Your task to perform on an android device: Clear the shopping cart on walmart. Search for "logitech g933" on walmart, select the first entry, and add it to the cart. Image 0: 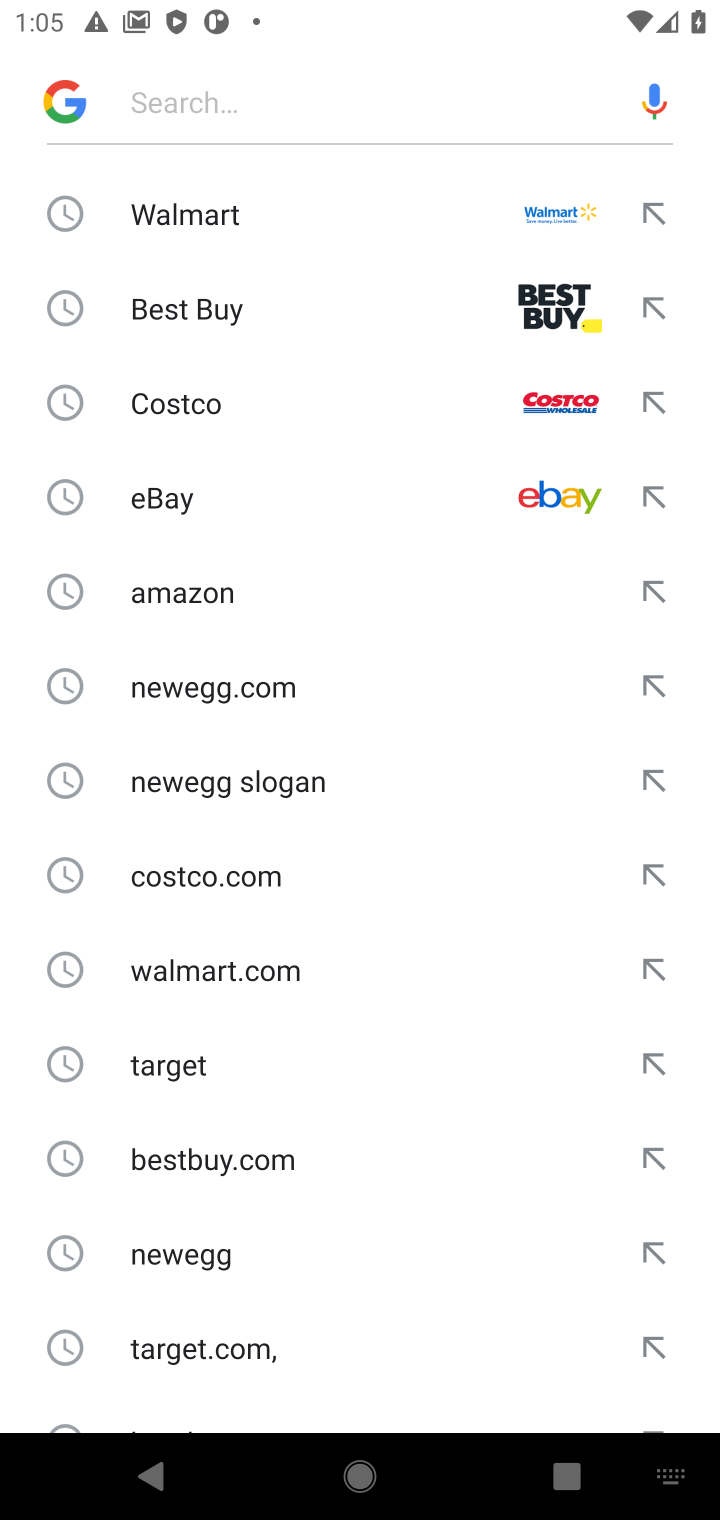
Step 0: click (197, 203)
Your task to perform on an android device: Clear the shopping cart on walmart. Search for "logitech g933" on walmart, select the first entry, and add it to the cart. Image 1: 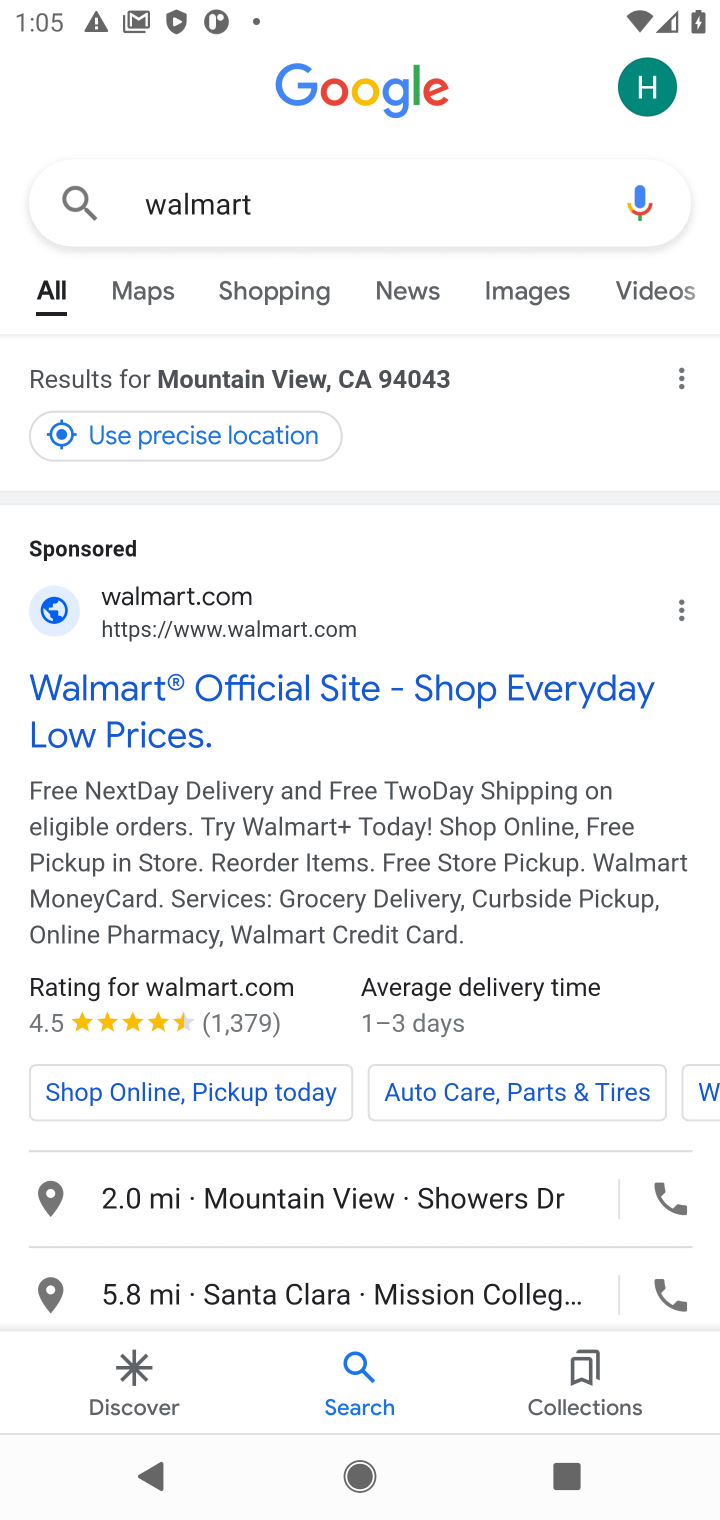
Step 1: click (160, 688)
Your task to perform on an android device: Clear the shopping cart on walmart. Search for "logitech g933" on walmart, select the first entry, and add it to the cart. Image 2: 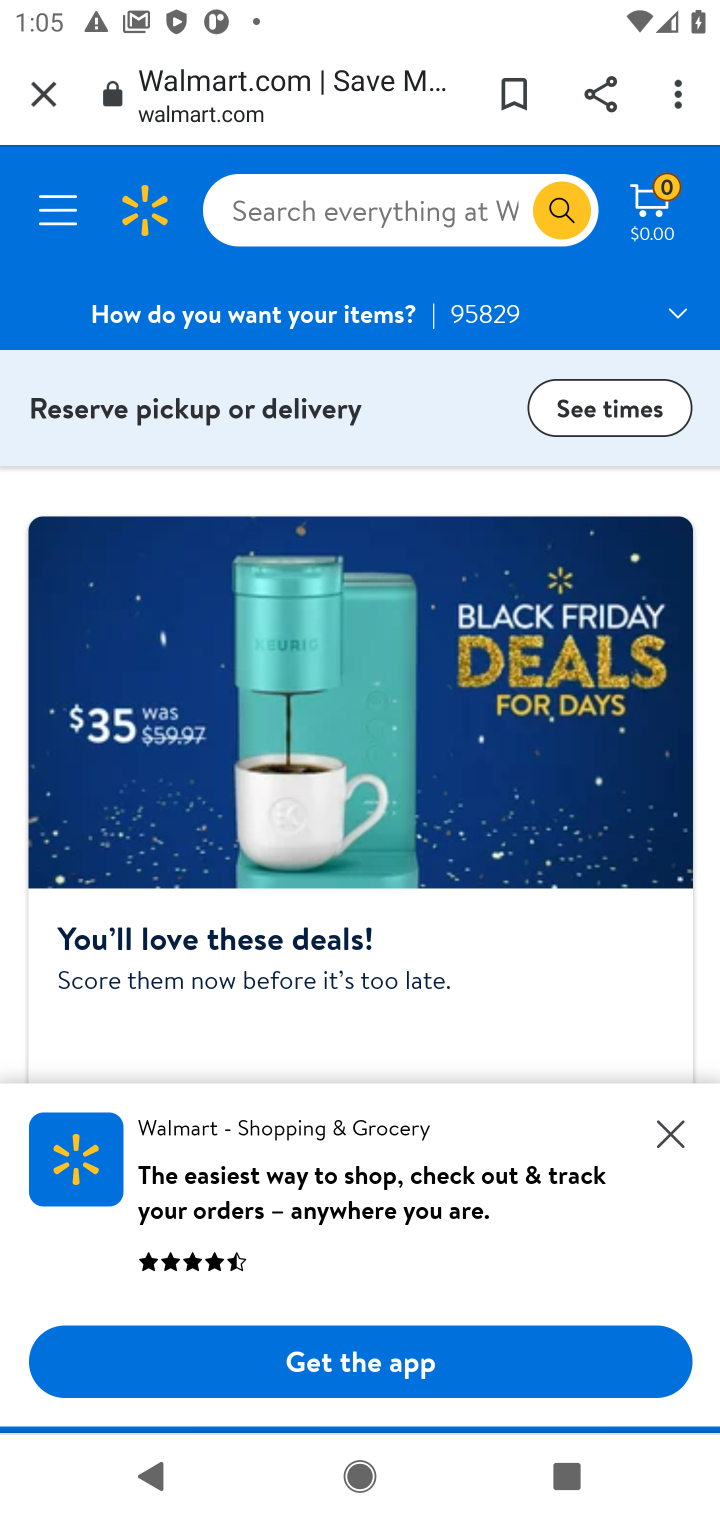
Step 2: click (351, 229)
Your task to perform on an android device: Clear the shopping cart on walmart. Search for "logitech g933" on walmart, select the first entry, and add it to the cart. Image 3: 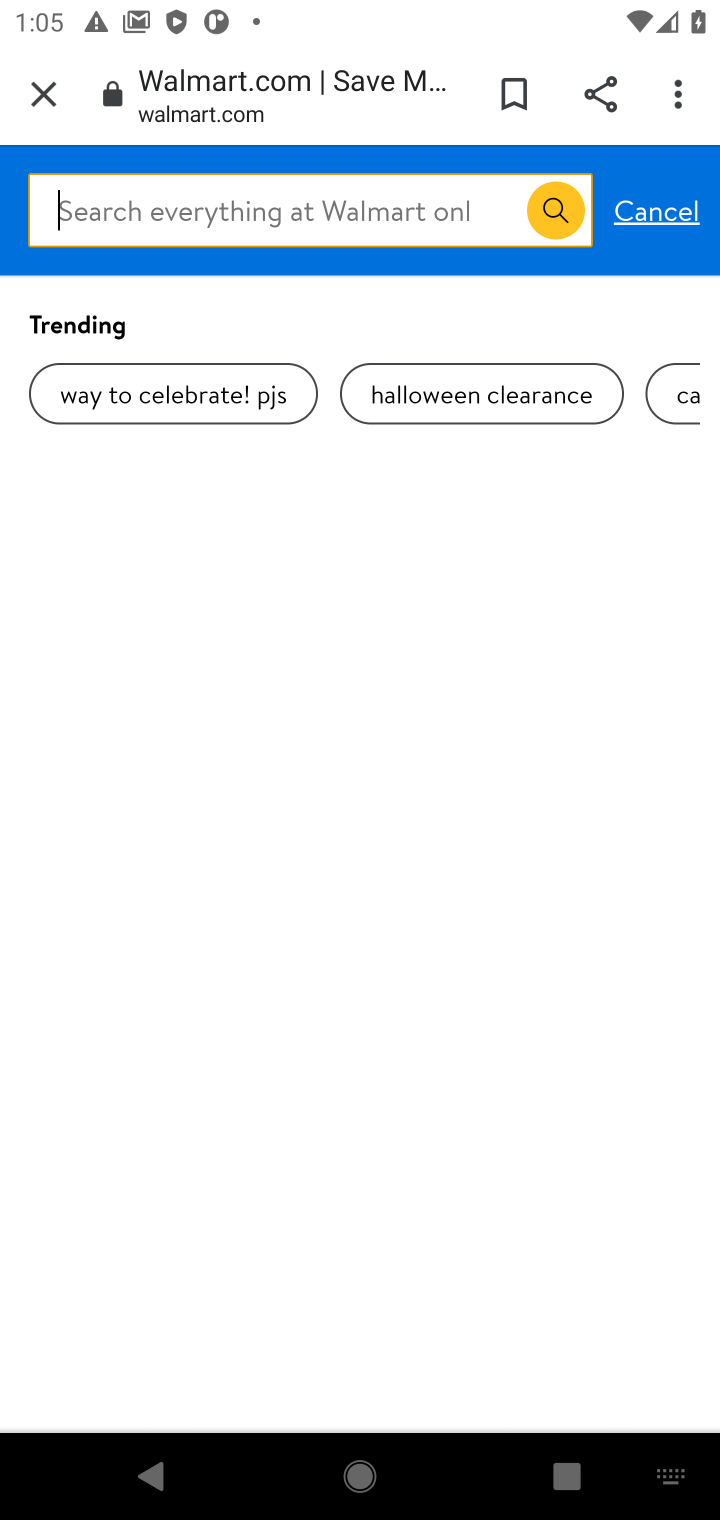
Step 3: task complete